Your task to perform on an android device: toggle notification dots Image 0: 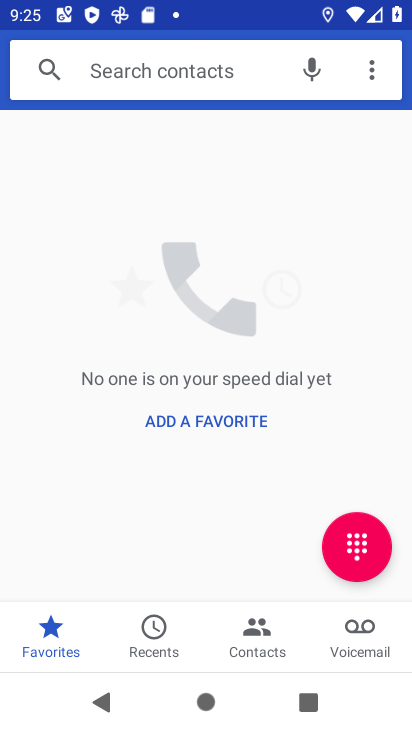
Step 0: press home button
Your task to perform on an android device: toggle notification dots Image 1: 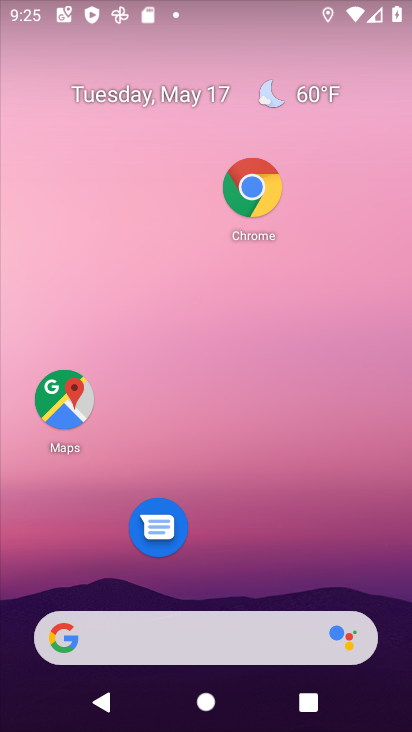
Step 1: drag from (285, 555) to (300, 36)
Your task to perform on an android device: toggle notification dots Image 2: 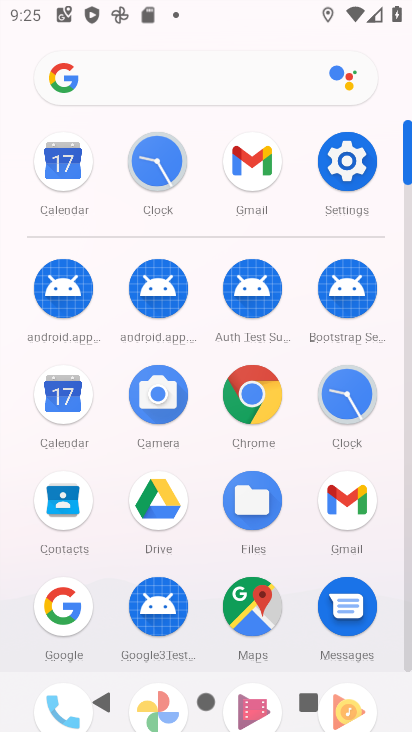
Step 2: click (332, 139)
Your task to perform on an android device: toggle notification dots Image 3: 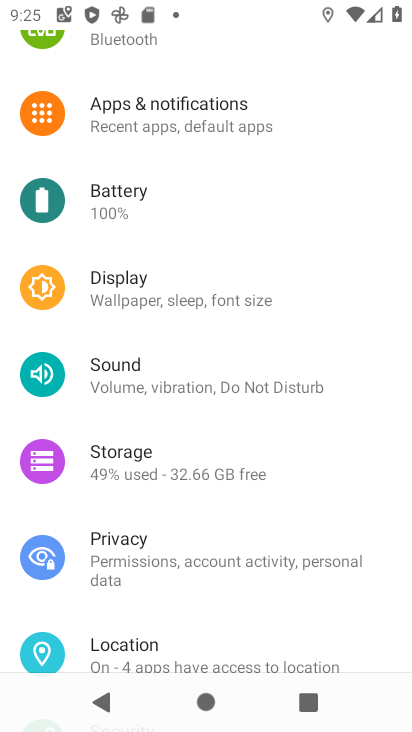
Step 3: drag from (143, 521) to (183, 617)
Your task to perform on an android device: toggle notification dots Image 4: 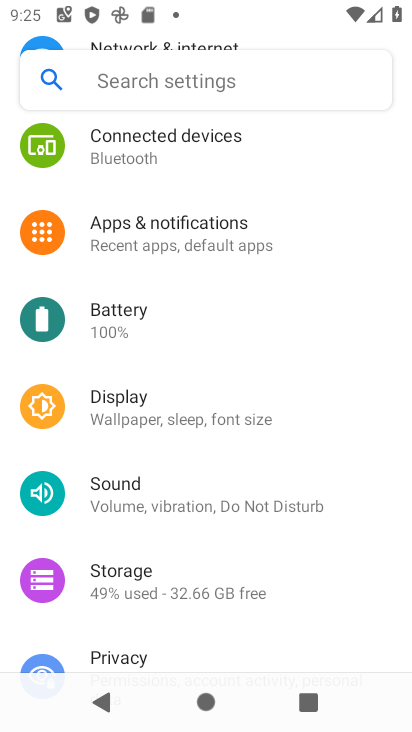
Step 4: click (186, 227)
Your task to perform on an android device: toggle notification dots Image 5: 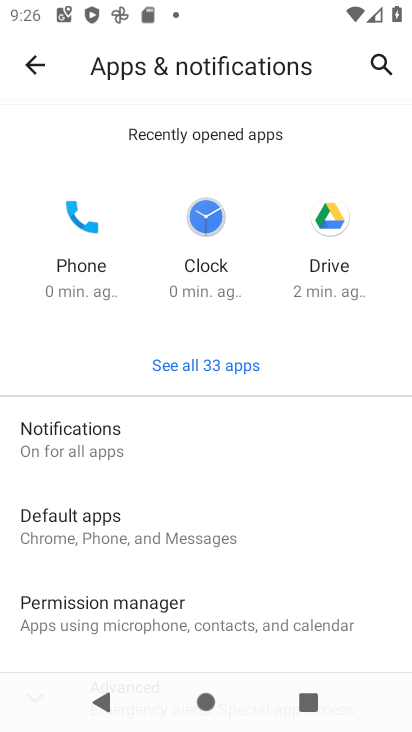
Step 5: drag from (231, 541) to (201, 214)
Your task to perform on an android device: toggle notification dots Image 6: 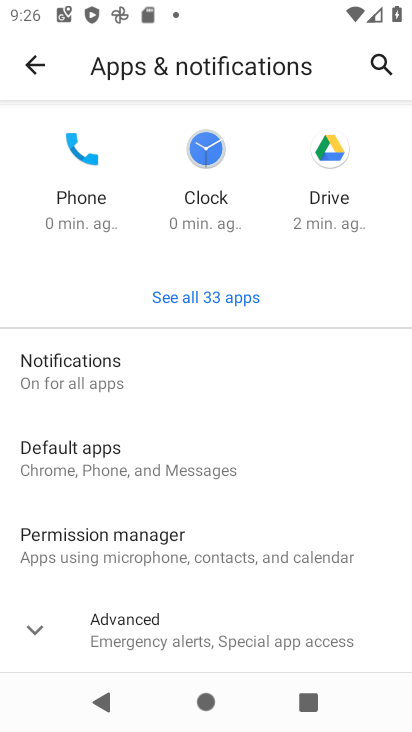
Step 6: click (132, 611)
Your task to perform on an android device: toggle notification dots Image 7: 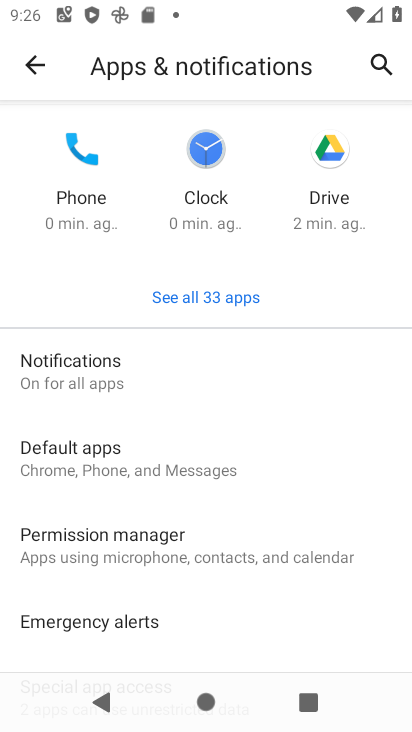
Step 7: drag from (240, 577) to (224, 250)
Your task to perform on an android device: toggle notification dots Image 8: 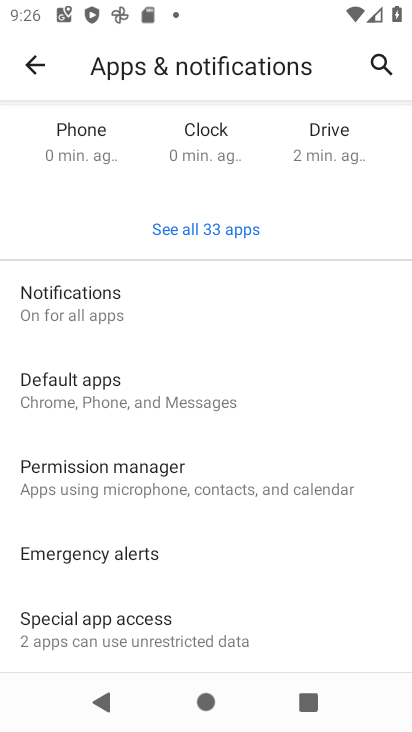
Step 8: click (149, 620)
Your task to perform on an android device: toggle notification dots Image 9: 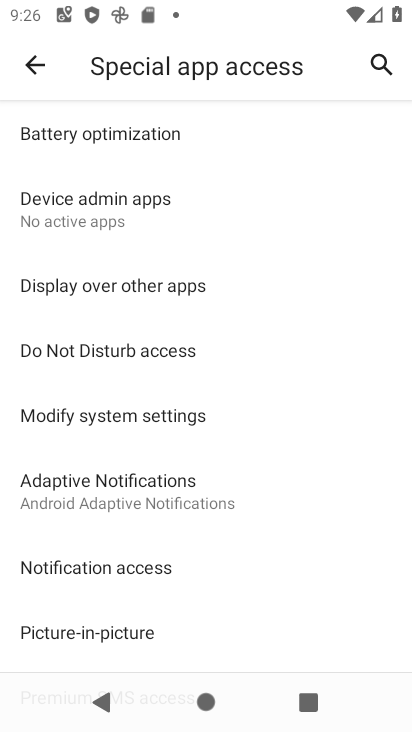
Step 9: click (37, 82)
Your task to perform on an android device: toggle notification dots Image 10: 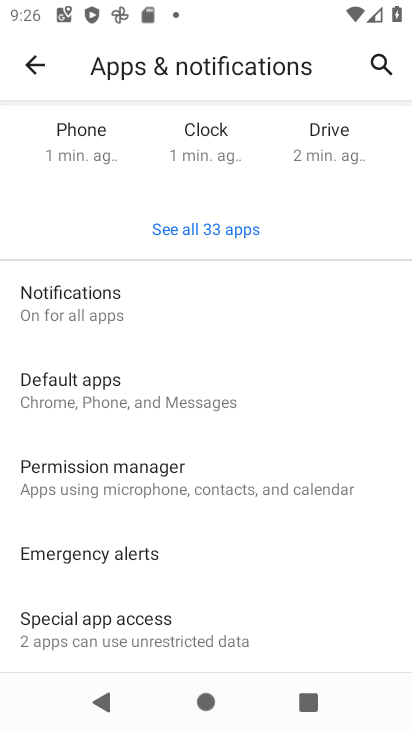
Step 10: click (159, 320)
Your task to perform on an android device: toggle notification dots Image 11: 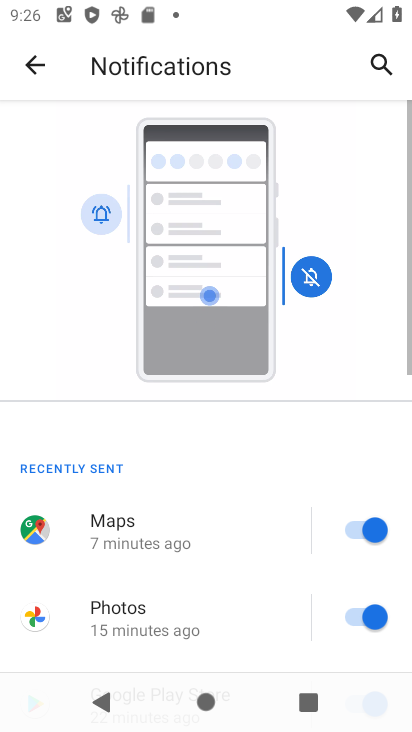
Step 11: drag from (180, 512) to (173, 172)
Your task to perform on an android device: toggle notification dots Image 12: 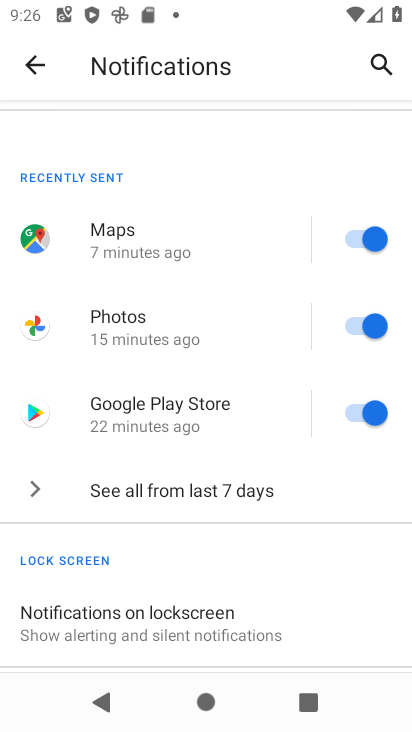
Step 12: drag from (142, 591) to (138, 333)
Your task to perform on an android device: toggle notification dots Image 13: 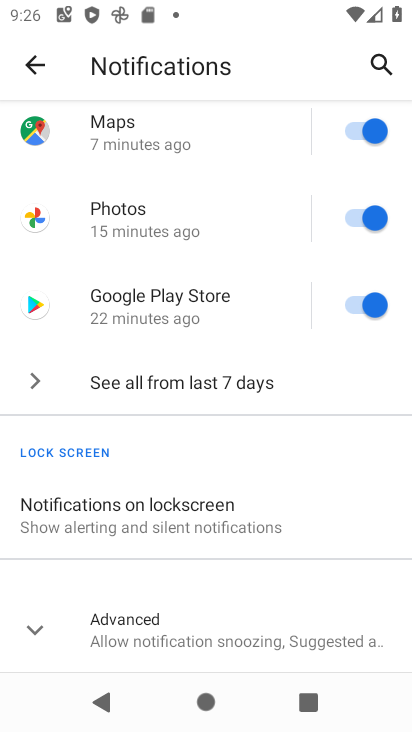
Step 13: click (190, 635)
Your task to perform on an android device: toggle notification dots Image 14: 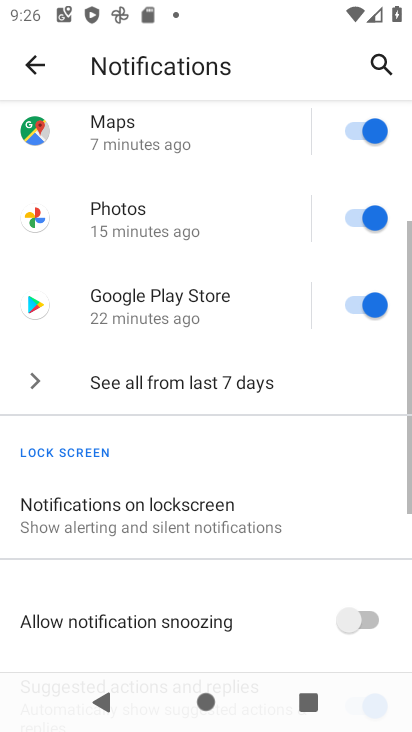
Step 14: drag from (228, 613) to (238, 235)
Your task to perform on an android device: toggle notification dots Image 15: 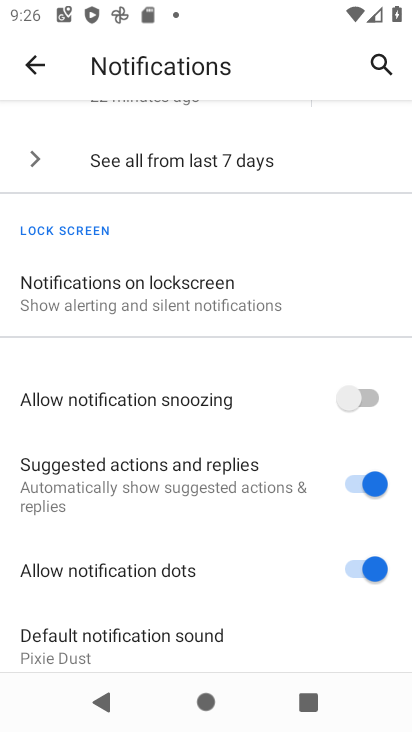
Step 15: click (300, 587)
Your task to perform on an android device: toggle notification dots Image 16: 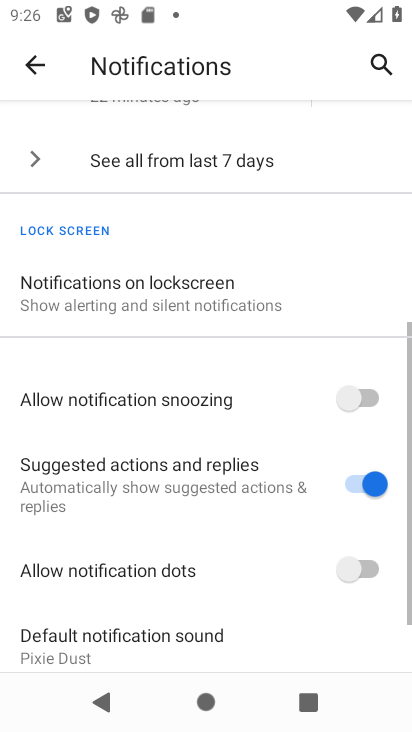
Step 16: task complete